Your task to perform on an android device: delete browsing data in the chrome app Image 0: 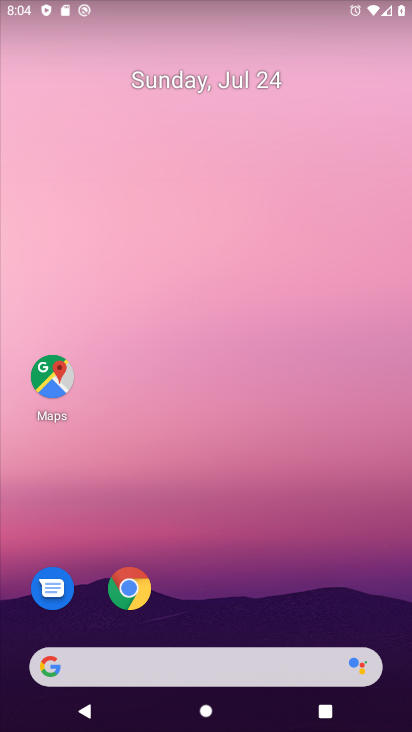
Step 0: click (51, 393)
Your task to perform on an android device: delete browsing data in the chrome app Image 1: 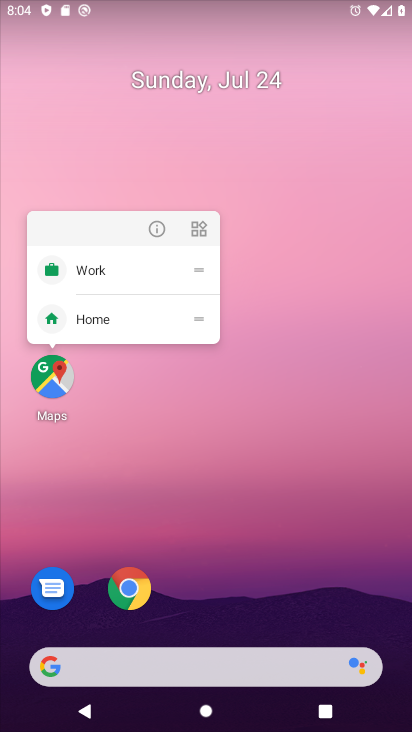
Step 1: click (51, 393)
Your task to perform on an android device: delete browsing data in the chrome app Image 2: 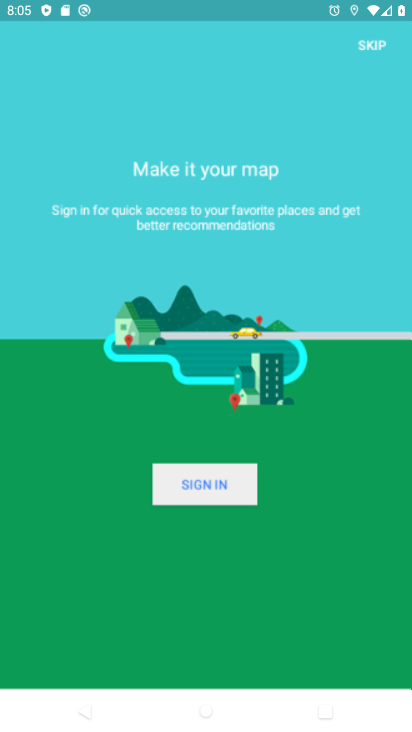
Step 2: press home button
Your task to perform on an android device: delete browsing data in the chrome app Image 3: 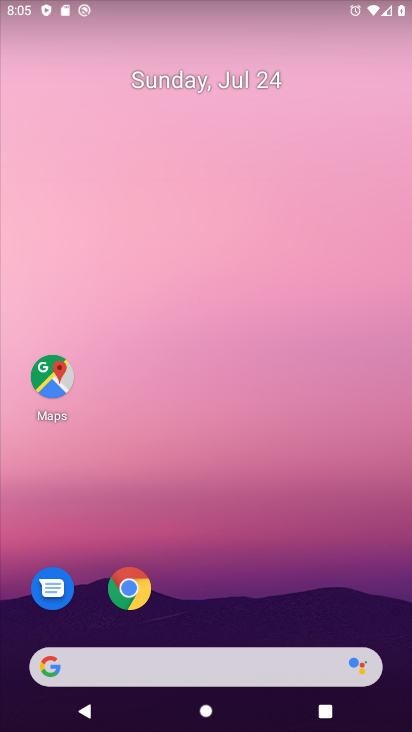
Step 3: drag from (233, 613) to (323, 189)
Your task to perform on an android device: delete browsing data in the chrome app Image 4: 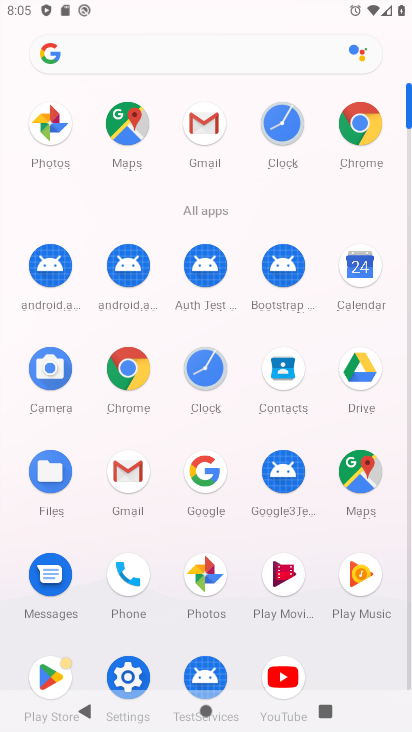
Step 4: click (355, 116)
Your task to perform on an android device: delete browsing data in the chrome app Image 5: 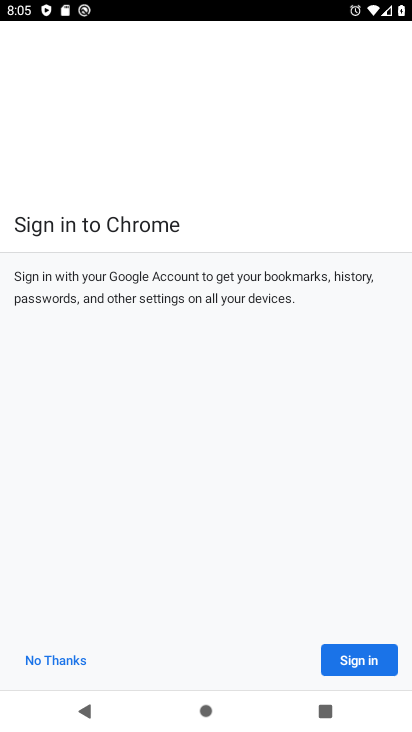
Step 5: task complete